Your task to perform on an android device: toggle notification dots Image 0: 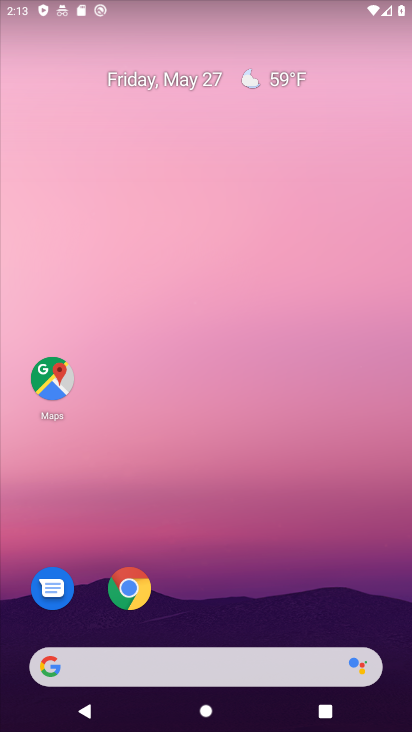
Step 0: drag from (238, 484) to (207, 223)
Your task to perform on an android device: toggle notification dots Image 1: 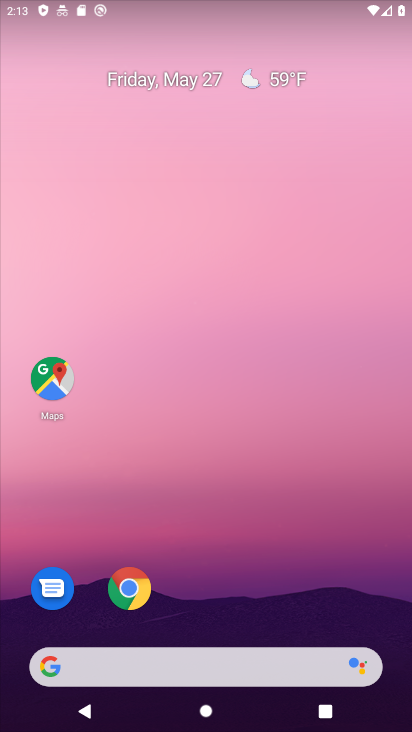
Step 1: click (209, 141)
Your task to perform on an android device: toggle notification dots Image 2: 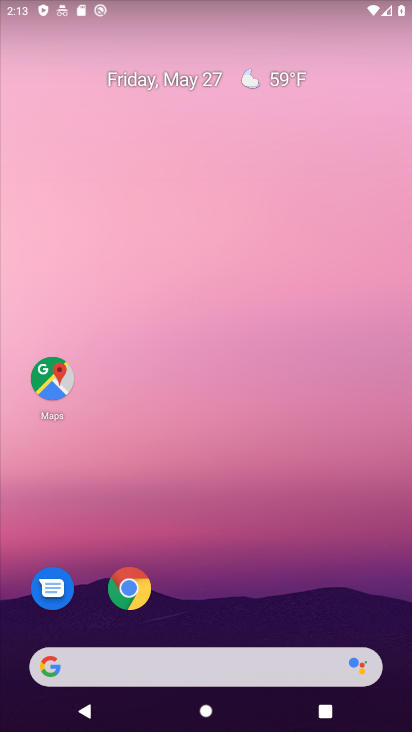
Step 2: click (187, 200)
Your task to perform on an android device: toggle notification dots Image 3: 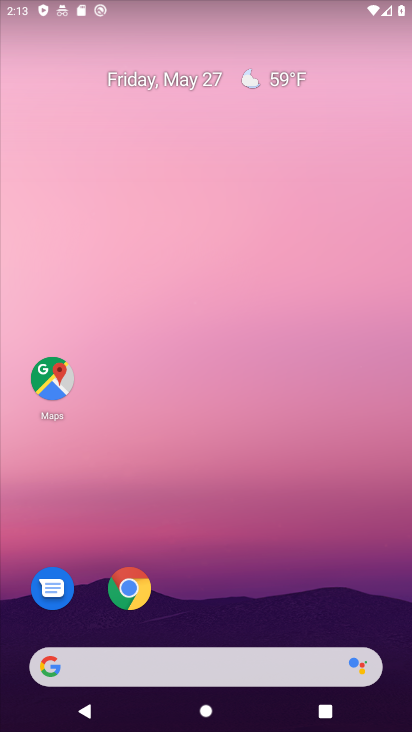
Step 3: drag from (187, 221) to (140, 42)
Your task to perform on an android device: toggle notification dots Image 4: 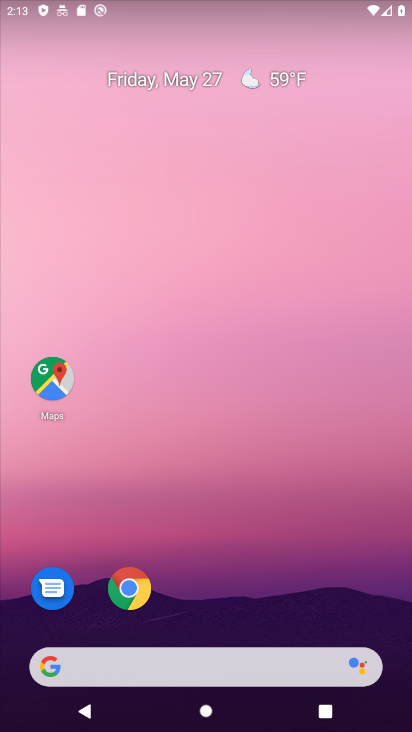
Step 4: drag from (117, 78) to (108, 16)
Your task to perform on an android device: toggle notification dots Image 5: 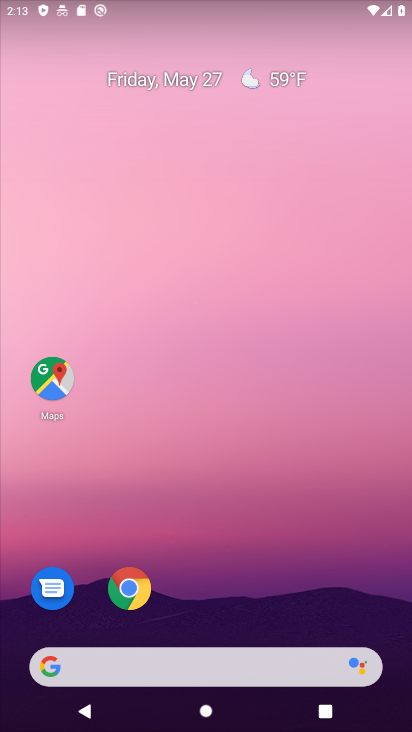
Step 5: drag from (261, 705) to (105, 12)
Your task to perform on an android device: toggle notification dots Image 6: 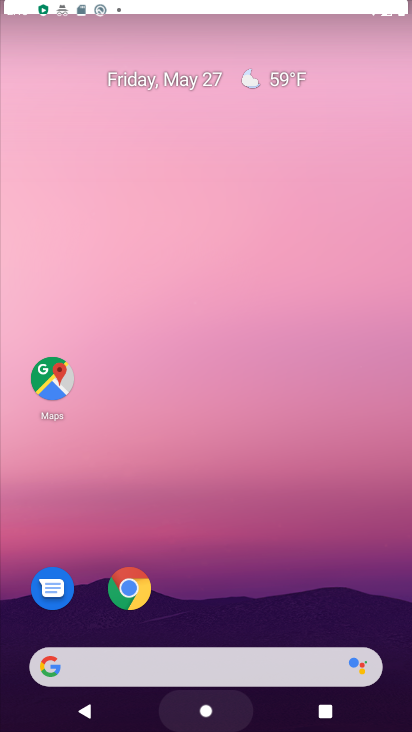
Step 6: drag from (228, 445) to (160, 82)
Your task to perform on an android device: toggle notification dots Image 7: 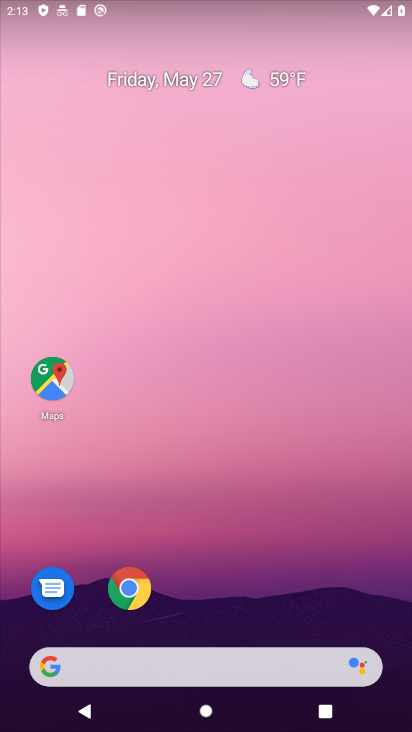
Step 7: drag from (227, 479) to (120, 100)
Your task to perform on an android device: toggle notification dots Image 8: 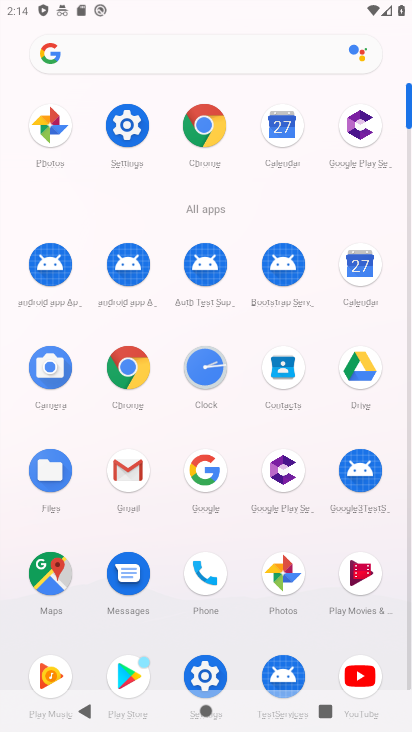
Step 8: click (128, 122)
Your task to perform on an android device: toggle notification dots Image 9: 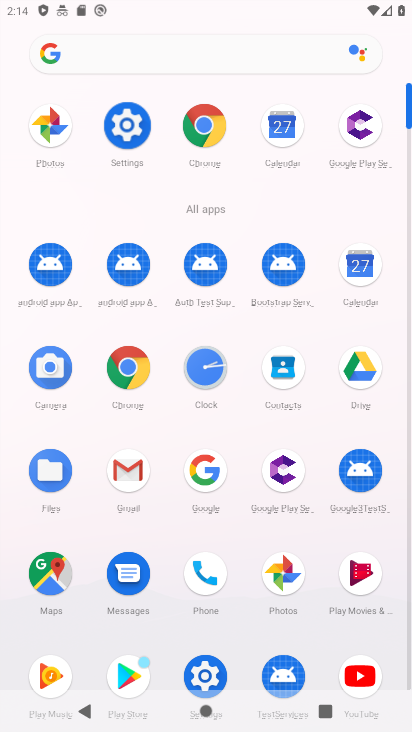
Step 9: click (128, 123)
Your task to perform on an android device: toggle notification dots Image 10: 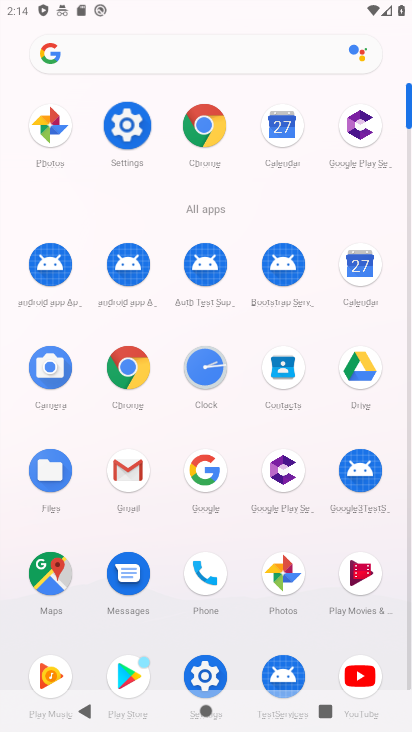
Step 10: click (128, 123)
Your task to perform on an android device: toggle notification dots Image 11: 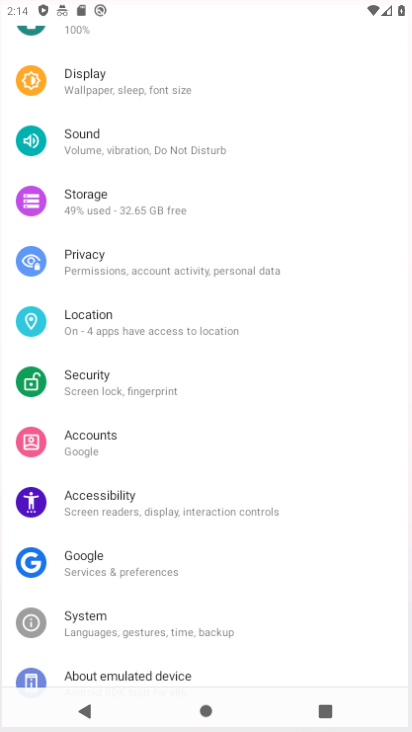
Step 11: click (128, 123)
Your task to perform on an android device: toggle notification dots Image 12: 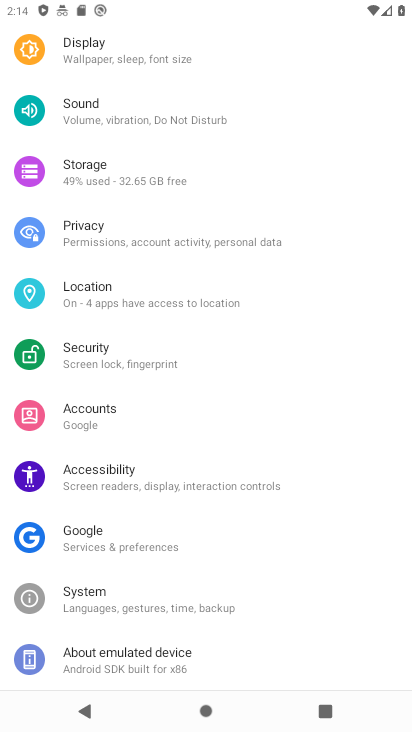
Step 12: click (129, 124)
Your task to perform on an android device: toggle notification dots Image 13: 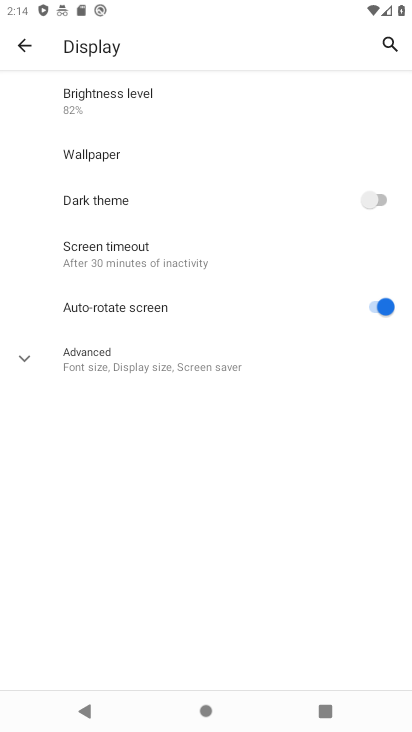
Step 13: click (129, 124)
Your task to perform on an android device: toggle notification dots Image 14: 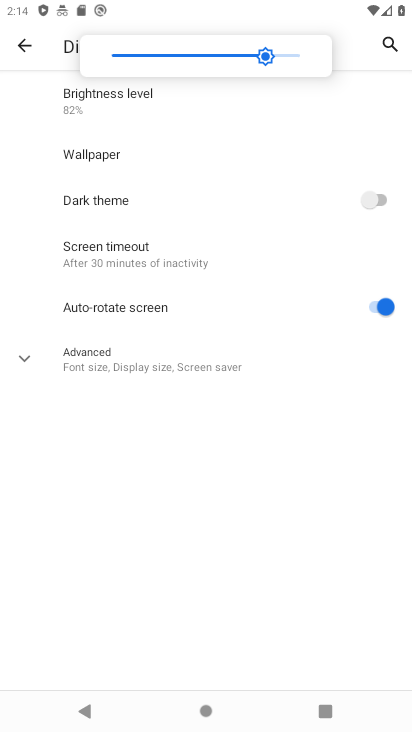
Step 14: click (21, 38)
Your task to perform on an android device: toggle notification dots Image 15: 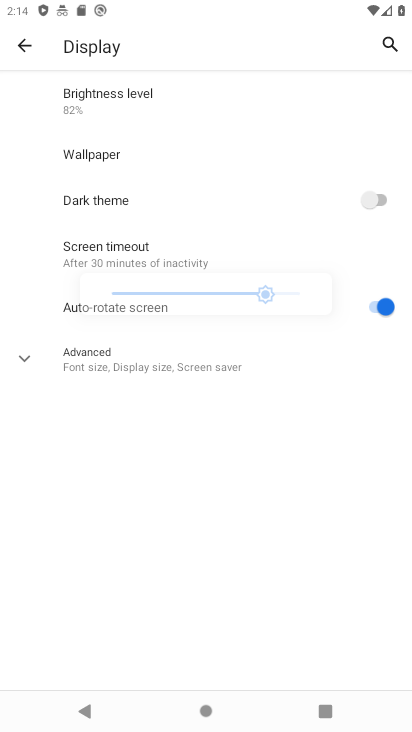
Step 15: click (21, 38)
Your task to perform on an android device: toggle notification dots Image 16: 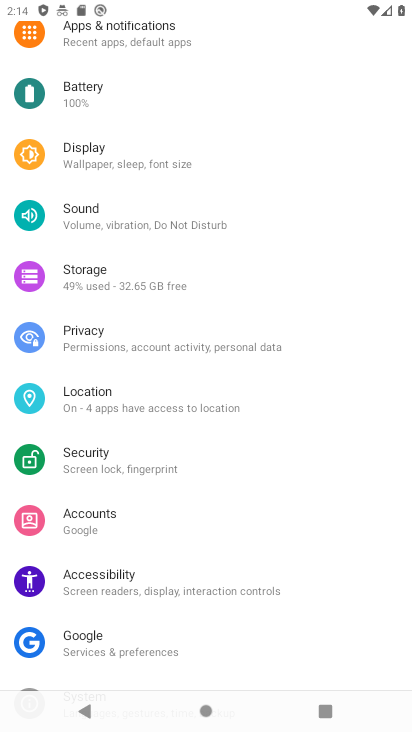
Step 16: click (138, 32)
Your task to perform on an android device: toggle notification dots Image 17: 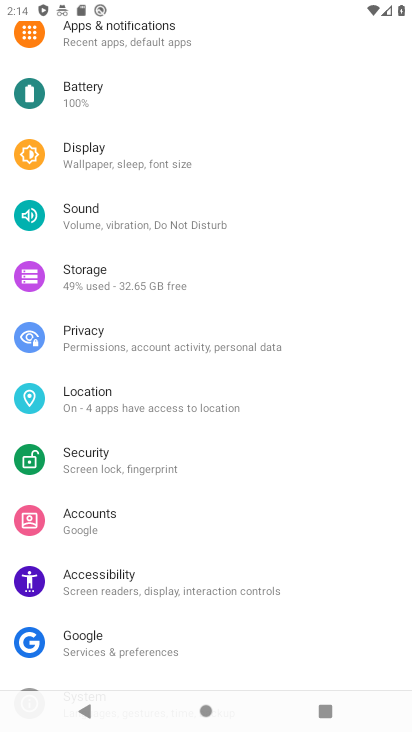
Step 17: click (138, 32)
Your task to perform on an android device: toggle notification dots Image 18: 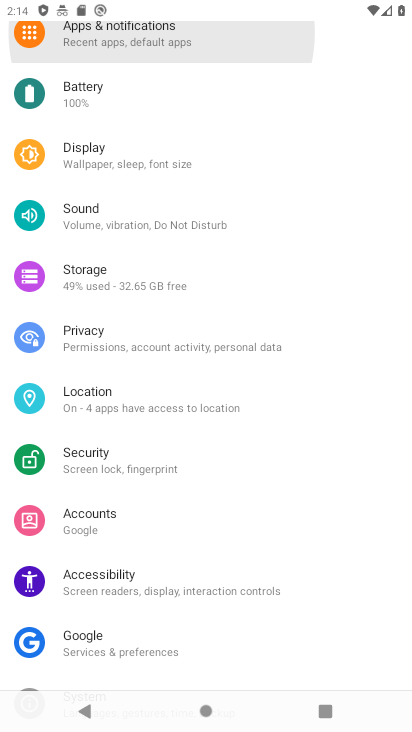
Step 18: click (137, 33)
Your task to perform on an android device: toggle notification dots Image 19: 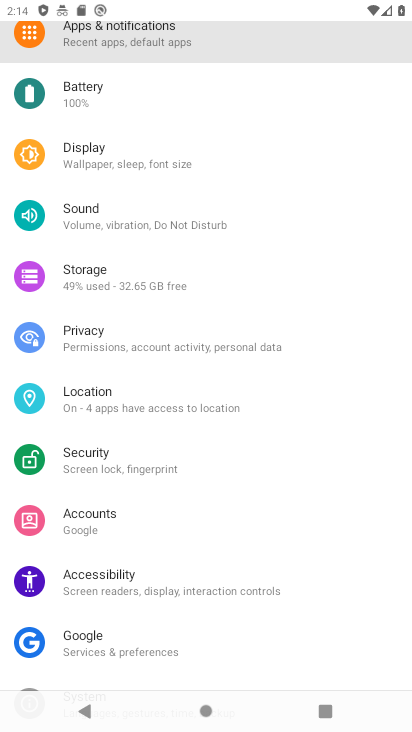
Step 19: click (136, 34)
Your task to perform on an android device: toggle notification dots Image 20: 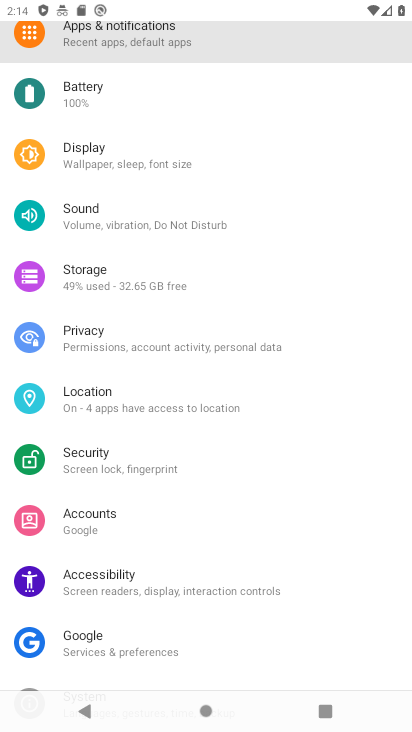
Step 20: click (136, 34)
Your task to perform on an android device: toggle notification dots Image 21: 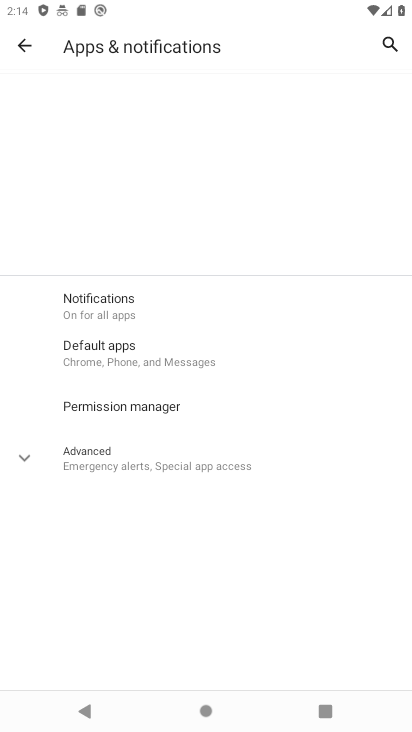
Step 21: click (136, 34)
Your task to perform on an android device: toggle notification dots Image 22: 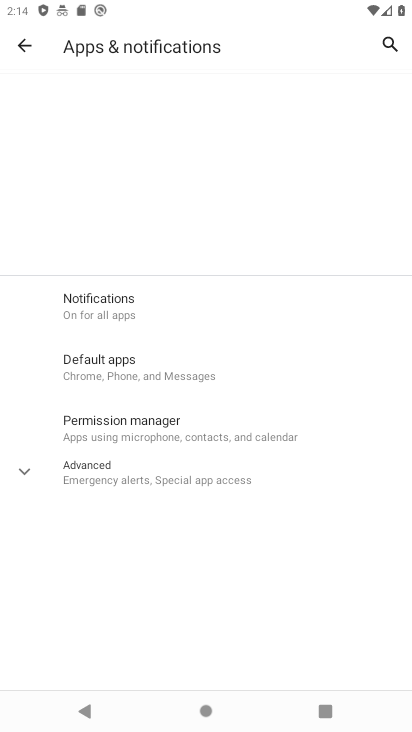
Step 22: click (137, 50)
Your task to perform on an android device: toggle notification dots Image 23: 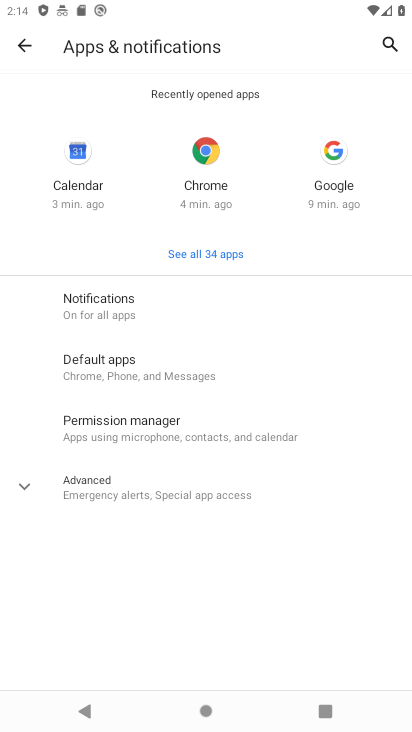
Step 23: click (131, 44)
Your task to perform on an android device: toggle notification dots Image 24: 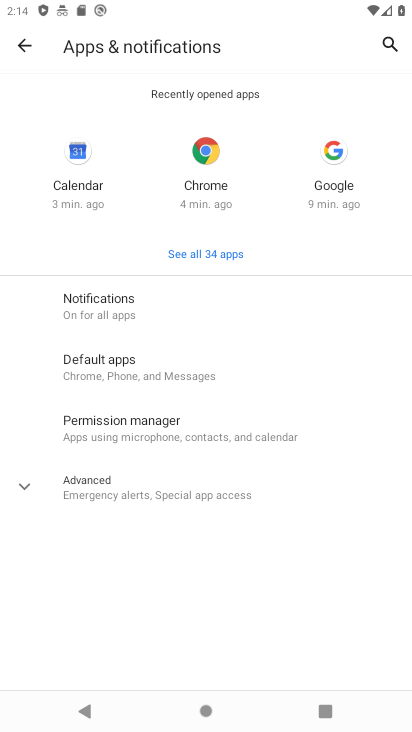
Step 24: click (96, 308)
Your task to perform on an android device: toggle notification dots Image 25: 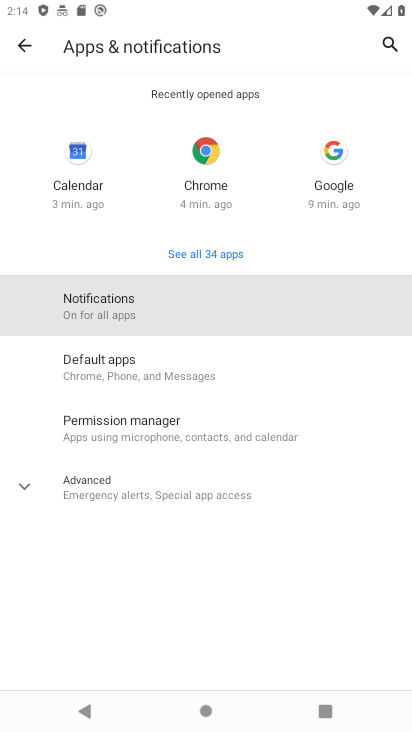
Step 25: click (96, 308)
Your task to perform on an android device: toggle notification dots Image 26: 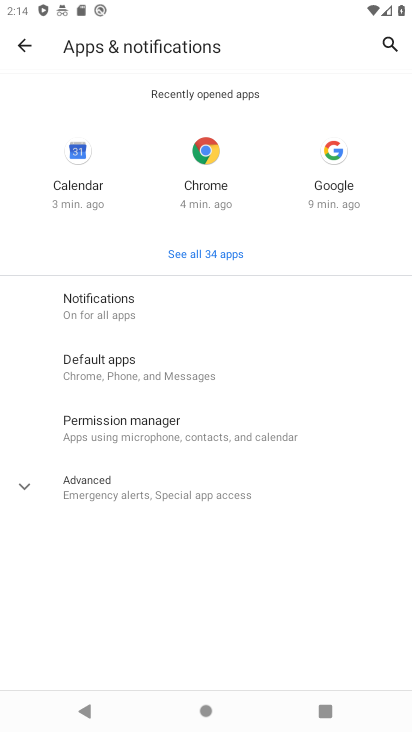
Step 26: click (96, 308)
Your task to perform on an android device: toggle notification dots Image 27: 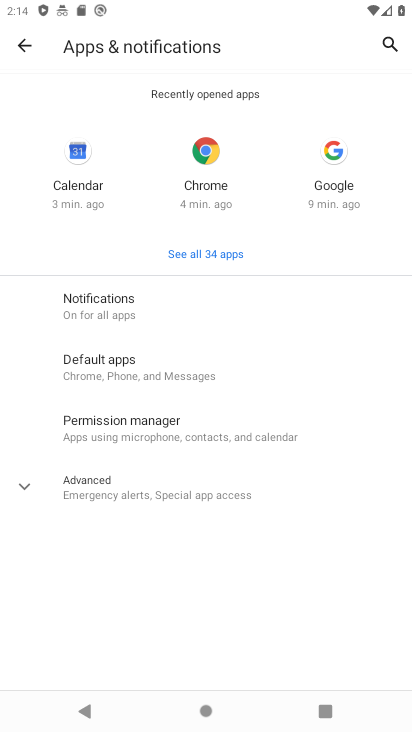
Step 27: click (96, 308)
Your task to perform on an android device: toggle notification dots Image 28: 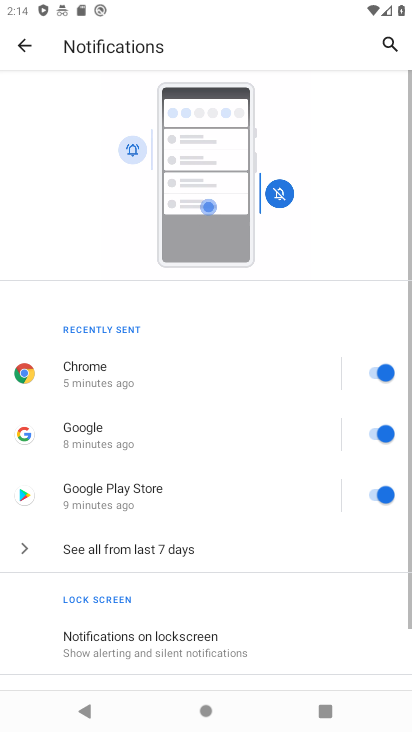
Step 28: click (96, 308)
Your task to perform on an android device: toggle notification dots Image 29: 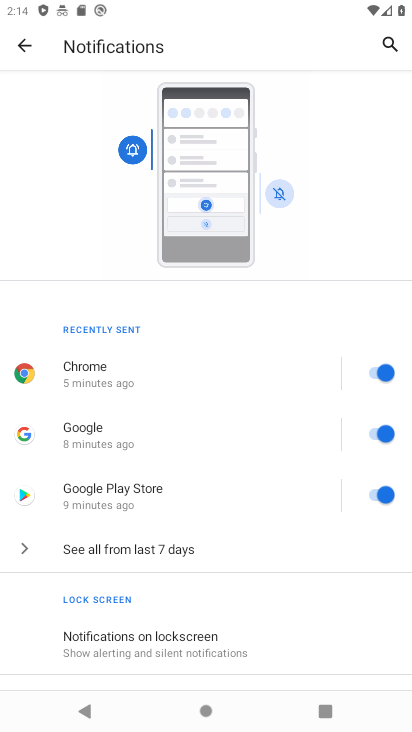
Step 29: drag from (200, 613) to (182, 244)
Your task to perform on an android device: toggle notification dots Image 30: 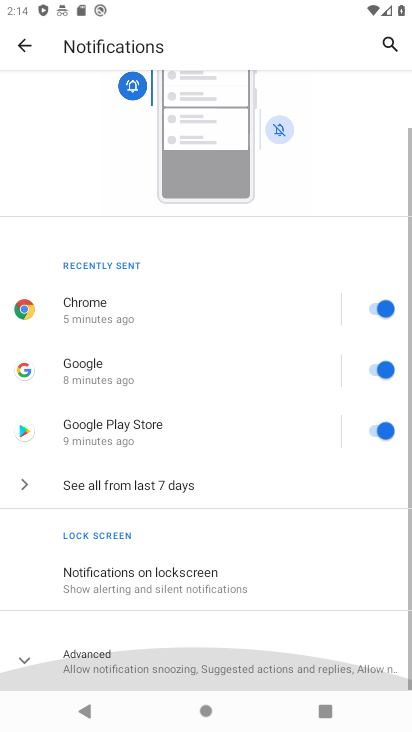
Step 30: drag from (192, 440) to (154, 114)
Your task to perform on an android device: toggle notification dots Image 31: 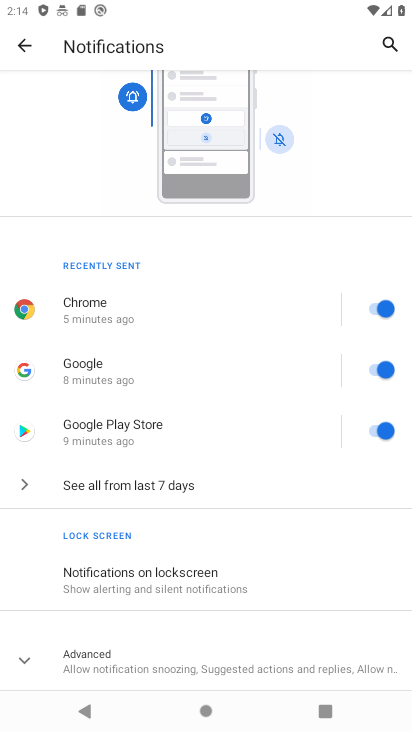
Step 31: click (92, 664)
Your task to perform on an android device: toggle notification dots Image 32: 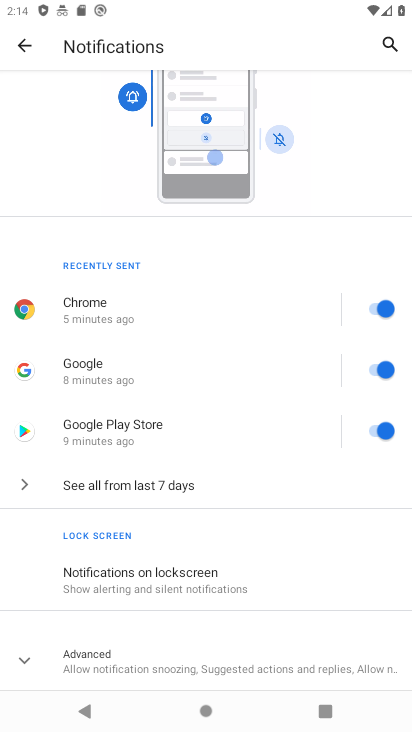
Step 32: click (92, 664)
Your task to perform on an android device: toggle notification dots Image 33: 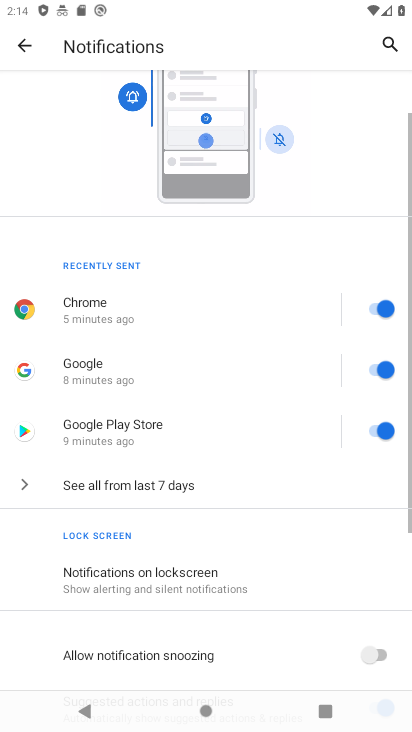
Step 33: click (92, 664)
Your task to perform on an android device: toggle notification dots Image 34: 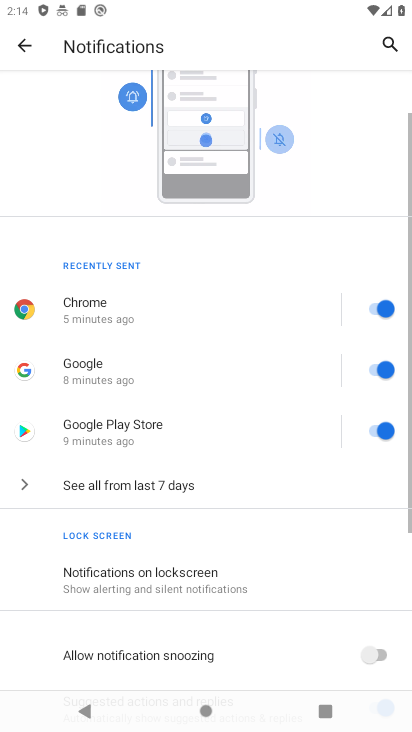
Step 34: click (92, 664)
Your task to perform on an android device: toggle notification dots Image 35: 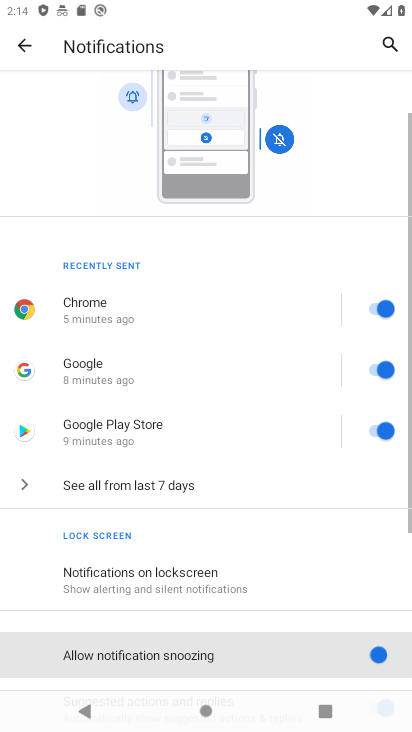
Step 35: click (92, 664)
Your task to perform on an android device: toggle notification dots Image 36: 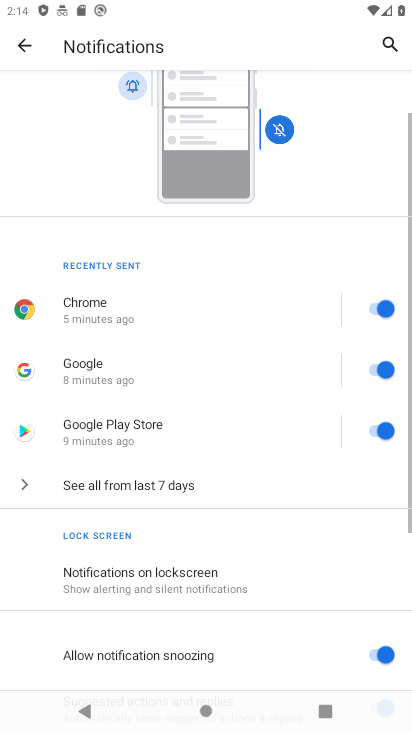
Step 36: click (136, 149)
Your task to perform on an android device: toggle notification dots Image 37: 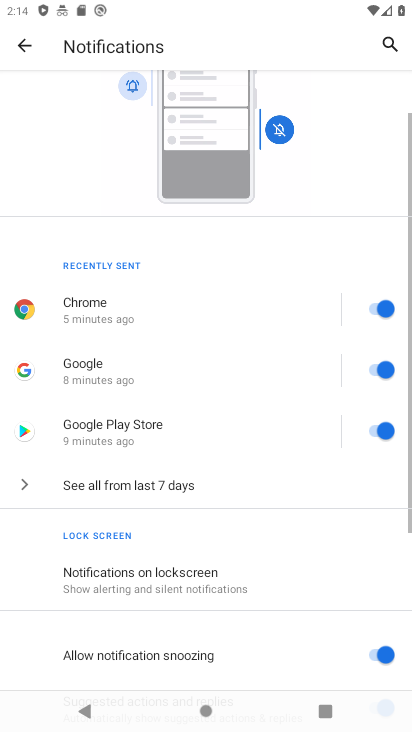
Step 37: drag from (229, 444) to (227, 287)
Your task to perform on an android device: toggle notification dots Image 38: 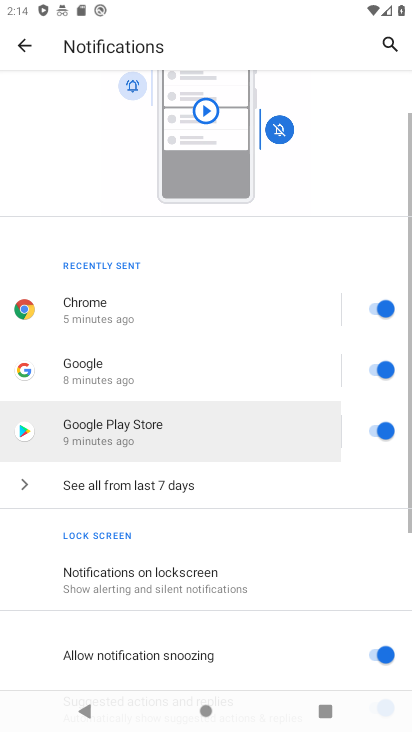
Step 38: drag from (259, 541) to (187, 100)
Your task to perform on an android device: toggle notification dots Image 39: 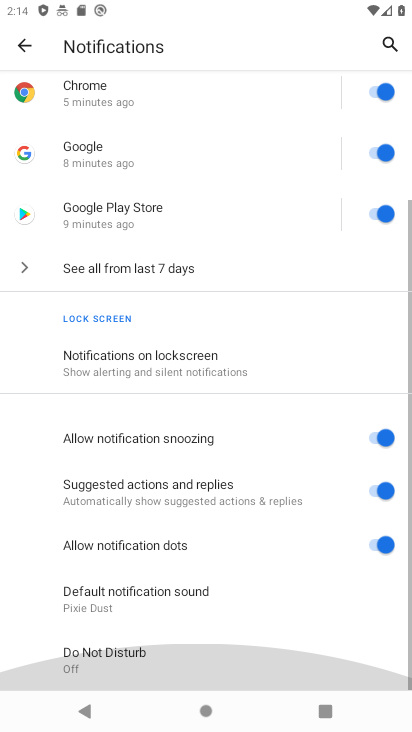
Step 39: drag from (275, 527) to (233, 210)
Your task to perform on an android device: toggle notification dots Image 40: 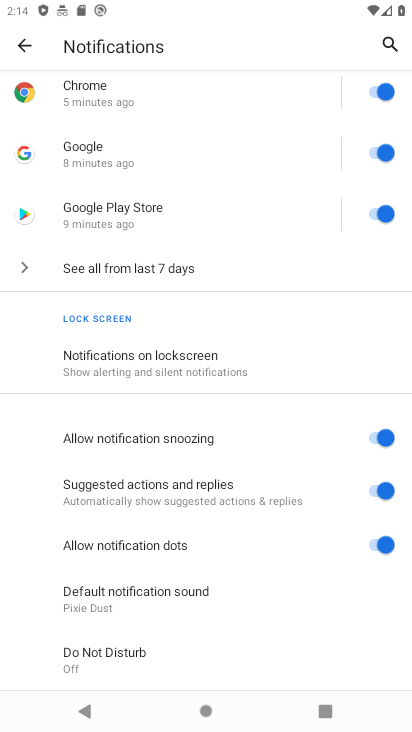
Step 40: click (258, 327)
Your task to perform on an android device: toggle notification dots Image 41: 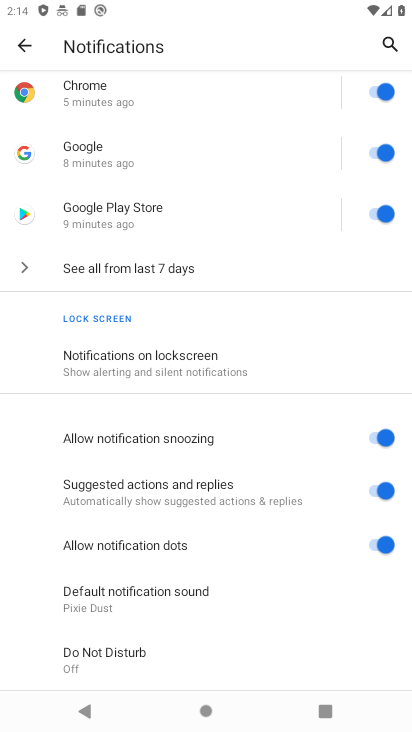
Step 41: click (389, 546)
Your task to perform on an android device: toggle notification dots Image 42: 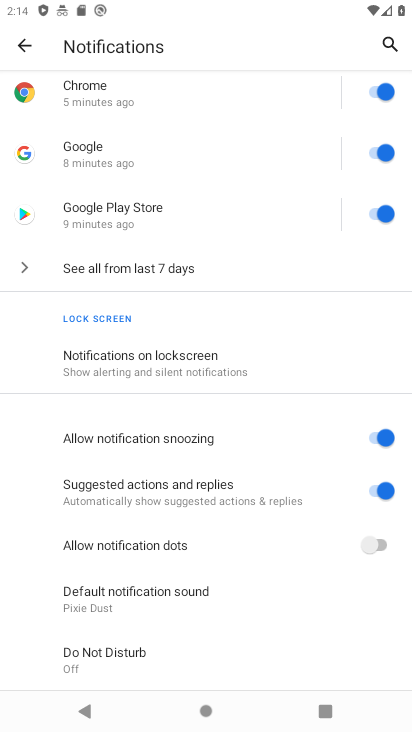
Step 42: task complete